Your task to perform on an android device: What is the recent news? Image 0: 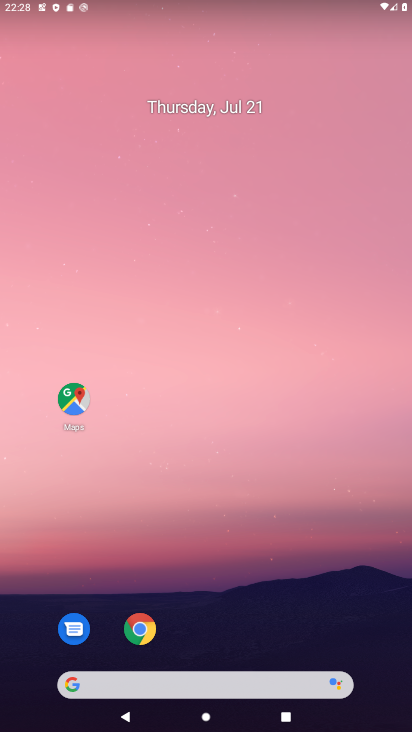
Step 0: press home button
Your task to perform on an android device: What is the recent news? Image 1: 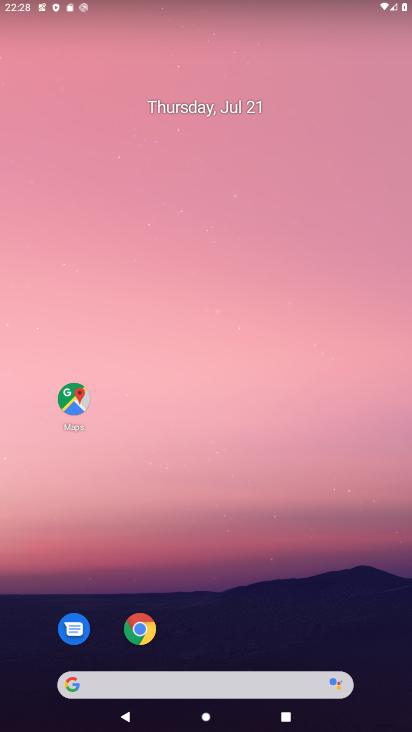
Step 1: press home button
Your task to perform on an android device: What is the recent news? Image 2: 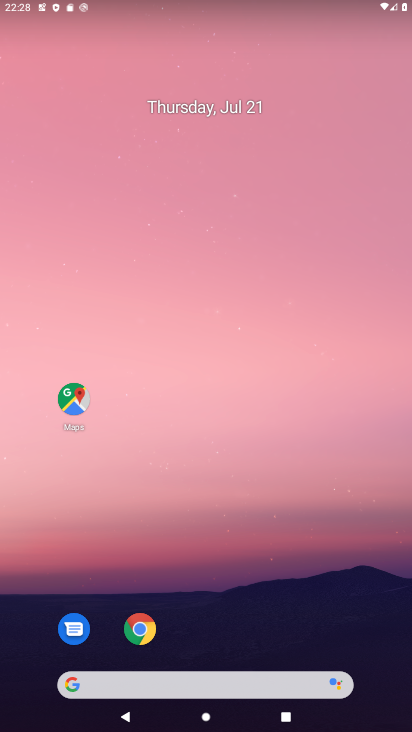
Step 2: click (68, 689)
Your task to perform on an android device: What is the recent news? Image 3: 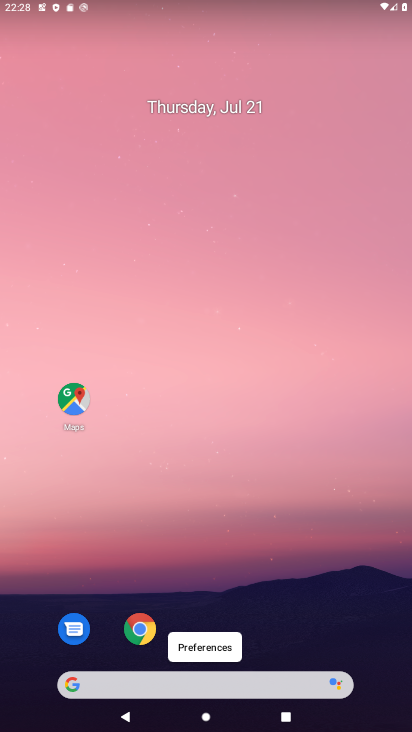
Step 3: click (68, 689)
Your task to perform on an android device: What is the recent news? Image 4: 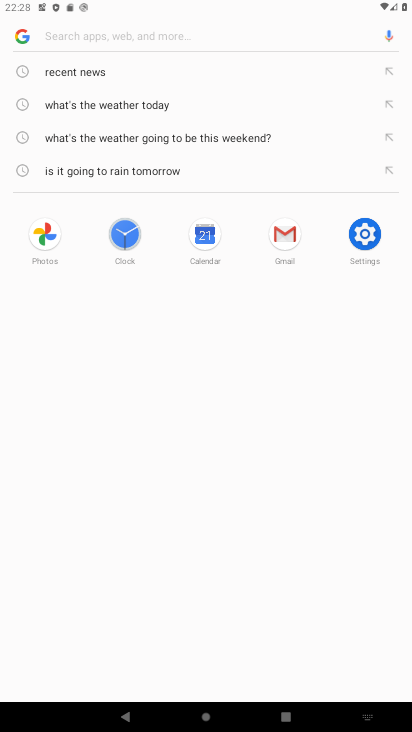
Step 4: click (75, 71)
Your task to perform on an android device: What is the recent news? Image 5: 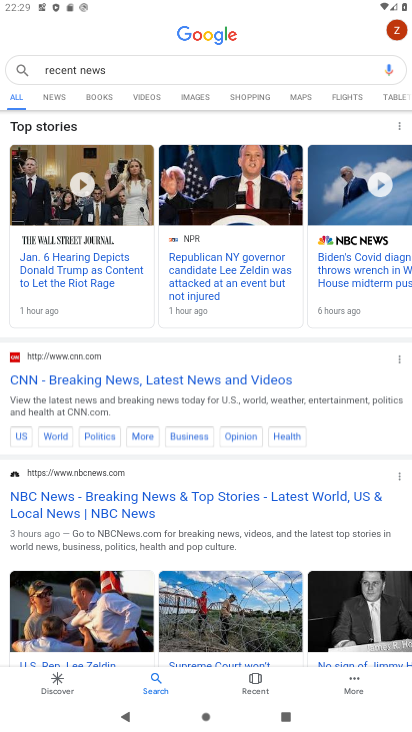
Step 5: task complete